Your task to perform on an android device: Go to privacy settings Image 0: 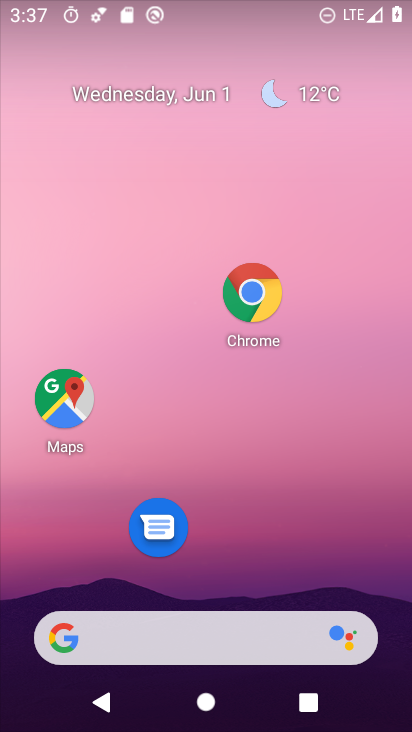
Step 0: drag from (250, 563) to (256, 147)
Your task to perform on an android device: Go to privacy settings Image 1: 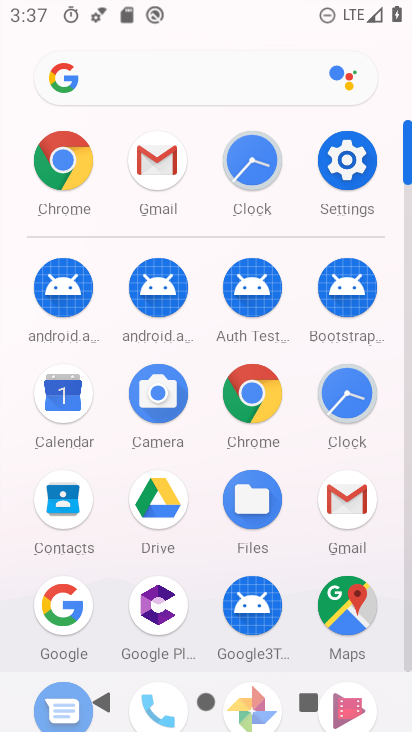
Step 1: click (351, 186)
Your task to perform on an android device: Go to privacy settings Image 2: 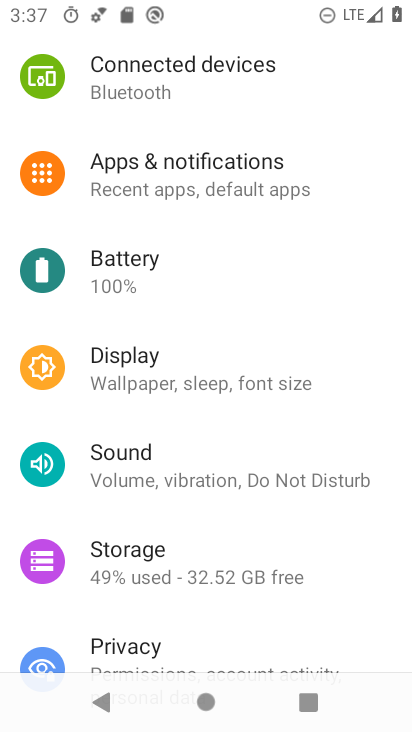
Step 2: drag from (190, 533) to (188, 358)
Your task to perform on an android device: Go to privacy settings Image 3: 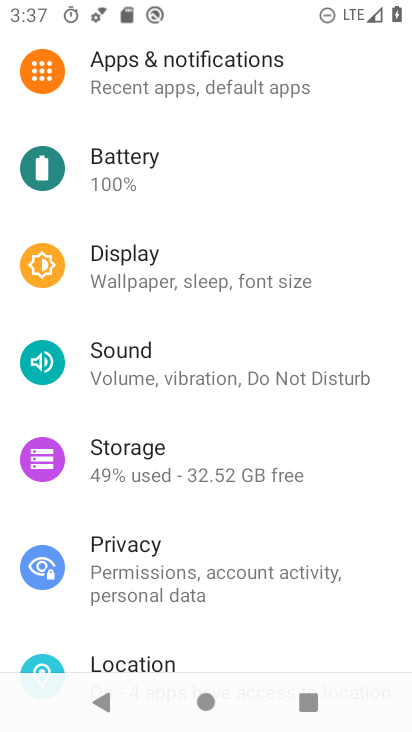
Step 3: click (197, 564)
Your task to perform on an android device: Go to privacy settings Image 4: 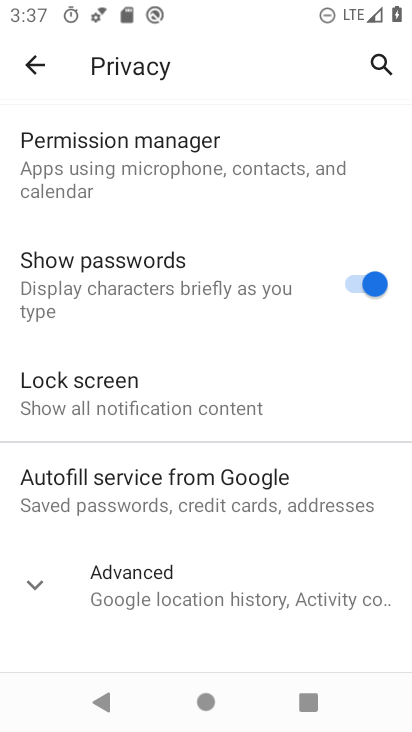
Step 4: task complete